Your task to perform on an android device: Open wifi settings Image 0: 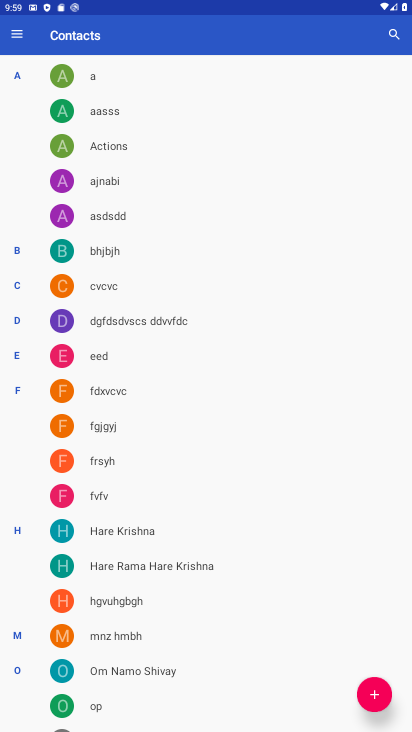
Step 0: press home button
Your task to perform on an android device: Open wifi settings Image 1: 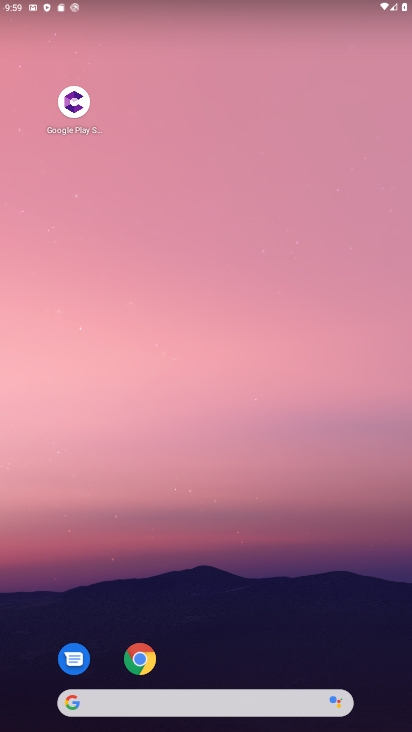
Step 1: drag from (256, 673) to (168, 118)
Your task to perform on an android device: Open wifi settings Image 2: 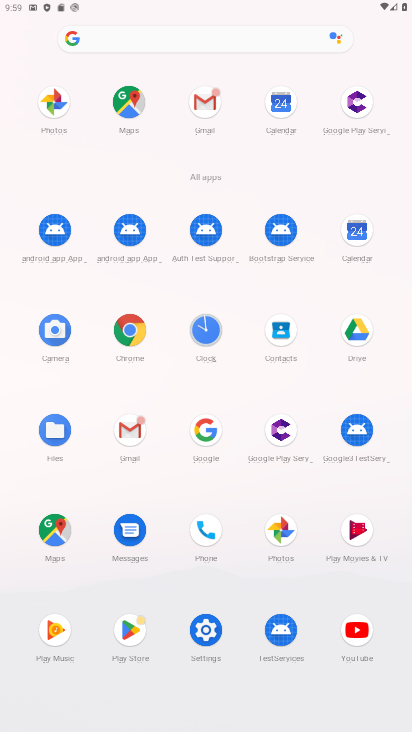
Step 2: click (215, 619)
Your task to perform on an android device: Open wifi settings Image 3: 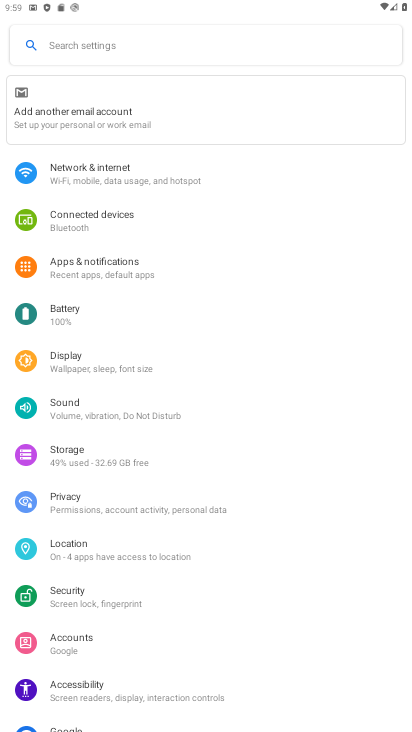
Step 3: click (209, 166)
Your task to perform on an android device: Open wifi settings Image 4: 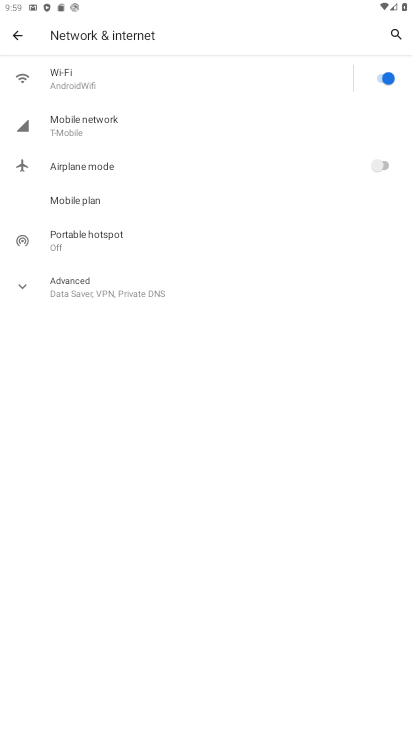
Step 4: click (173, 86)
Your task to perform on an android device: Open wifi settings Image 5: 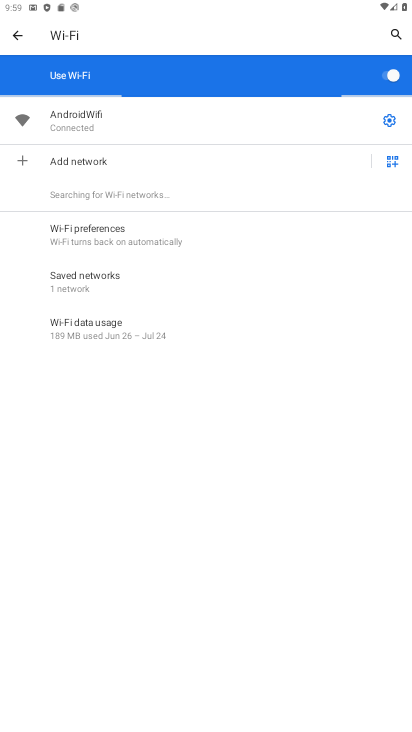
Step 5: task complete